Your task to perform on an android device: turn on the 24-hour format for clock Image 0: 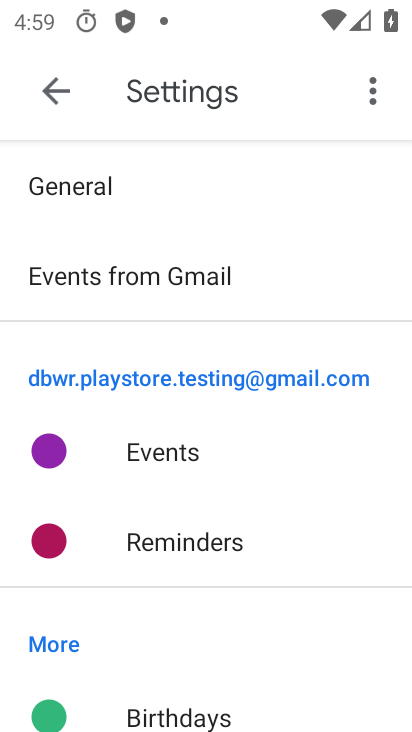
Step 0: press home button
Your task to perform on an android device: turn on the 24-hour format for clock Image 1: 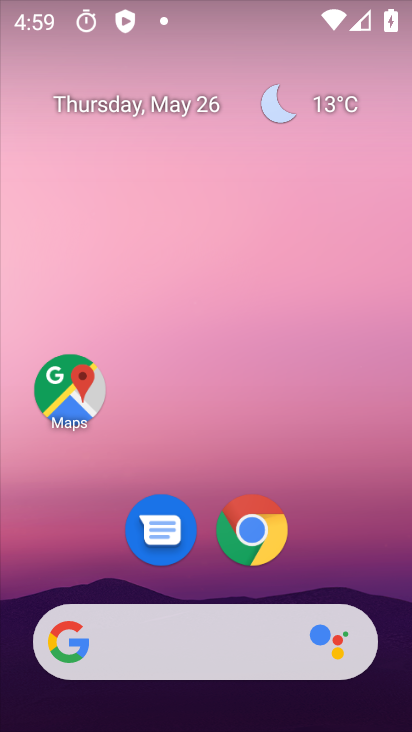
Step 1: drag from (239, 645) to (342, 7)
Your task to perform on an android device: turn on the 24-hour format for clock Image 2: 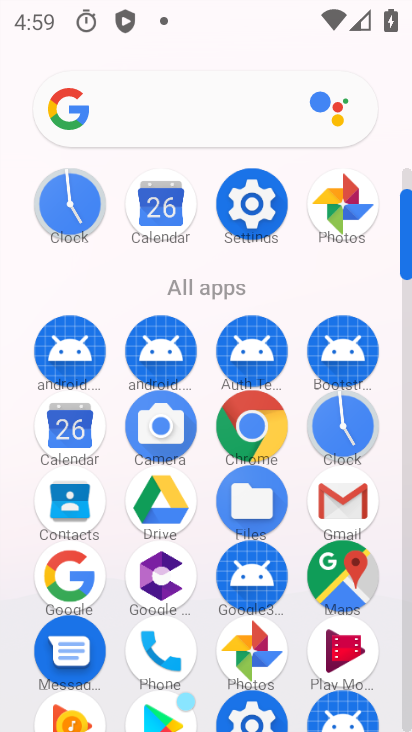
Step 2: click (335, 435)
Your task to perform on an android device: turn on the 24-hour format for clock Image 3: 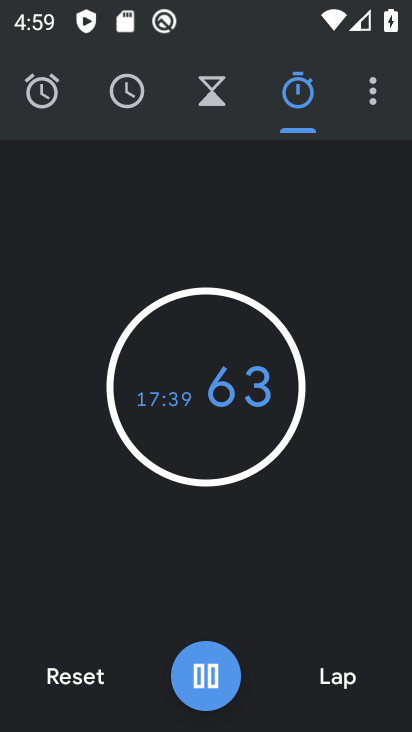
Step 3: drag from (363, 91) to (179, 170)
Your task to perform on an android device: turn on the 24-hour format for clock Image 4: 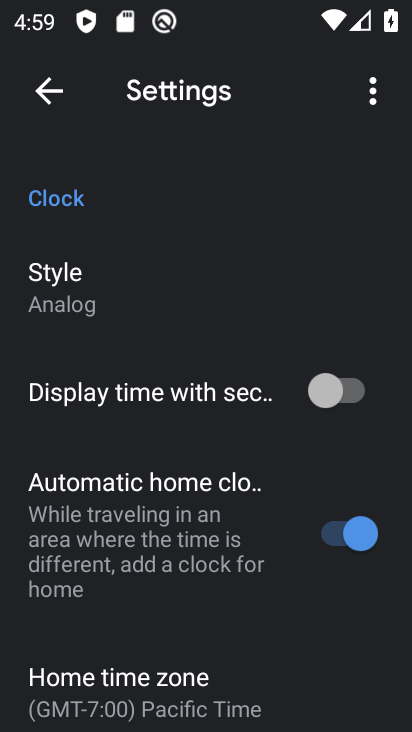
Step 4: drag from (220, 620) to (235, 279)
Your task to perform on an android device: turn on the 24-hour format for clock Image 5: 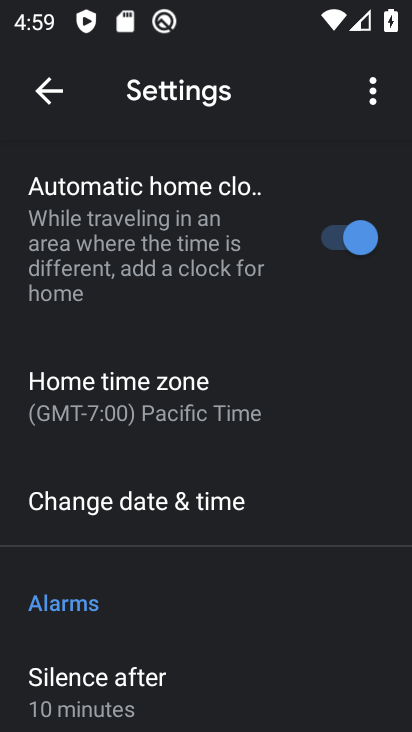
Step 5: click (250, 505)
Your task to perform on an android device: turn on the 24-hour format for clock Image 6: 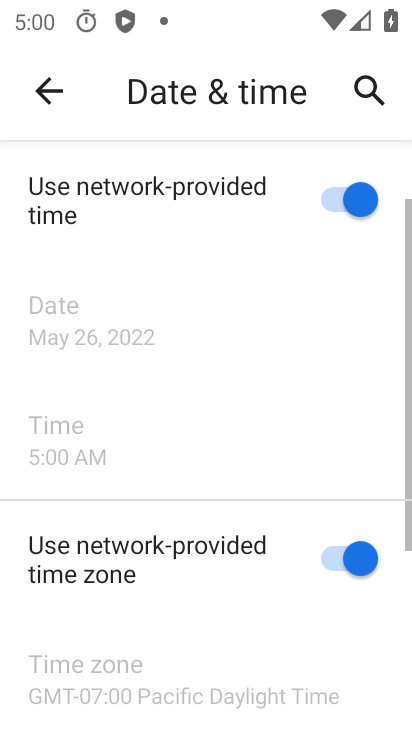
Step 6: drag from (225, 664) to (315, 170)
Your task to perform on an android device: turn on the 24-hour format for clock Image 7: 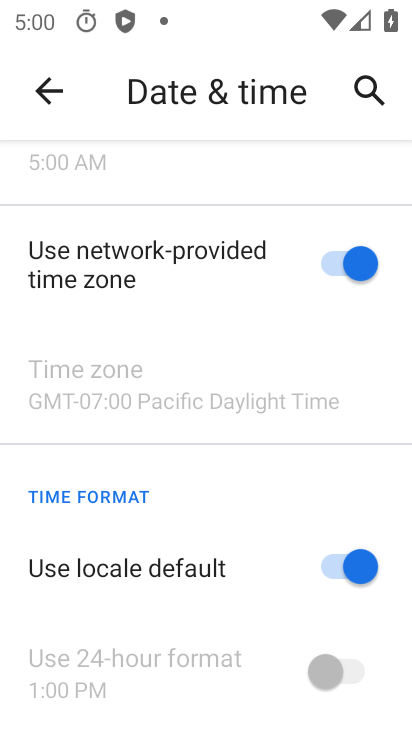
Step 7: click (337, 581)
Your task to perform on an android device: turn on the 24-hour format for clock Image 8: 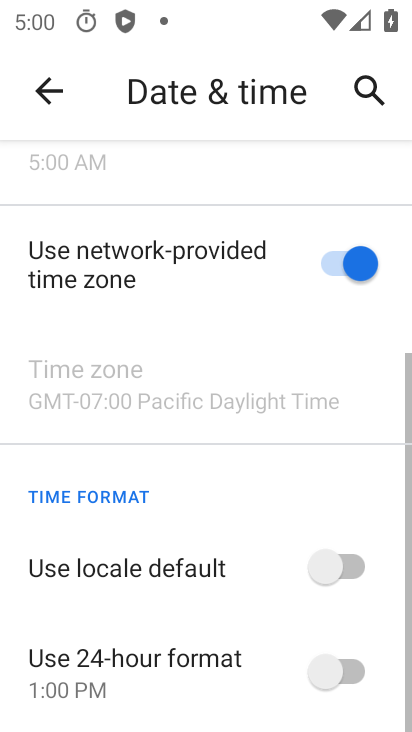
Step 8: click (355, 675)
Your task to perform on an android device: turn on the 24-hour format for clock Image 9: 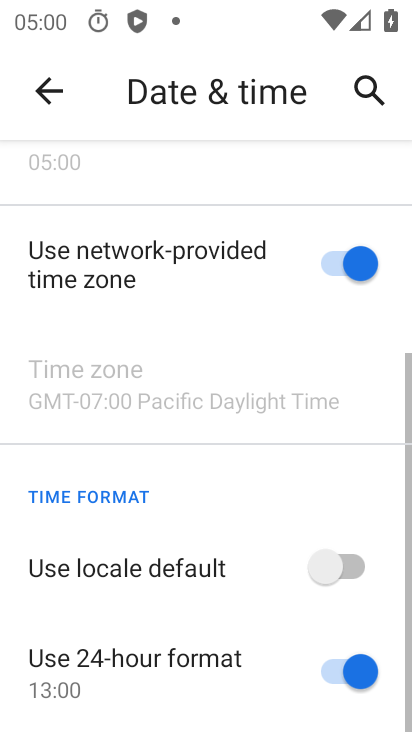
Step 9: task complete